Your task to perform on an android device: turn on improve location accuracy Image 0: 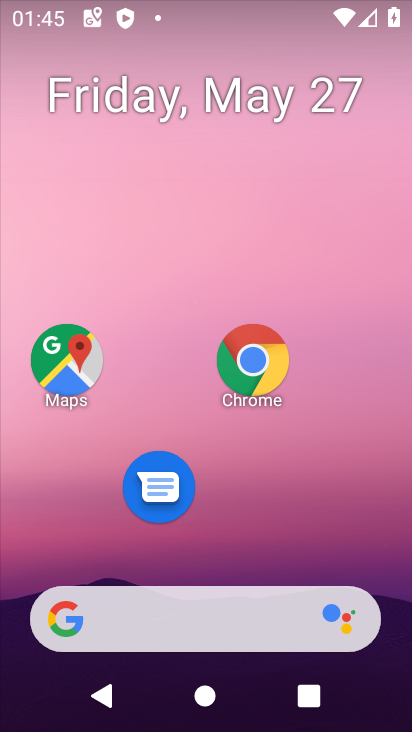
Step 0: drag from (251, 492) to (254, 50)
Your task to perform on an android device: turn on improve location accuracy Image 1: 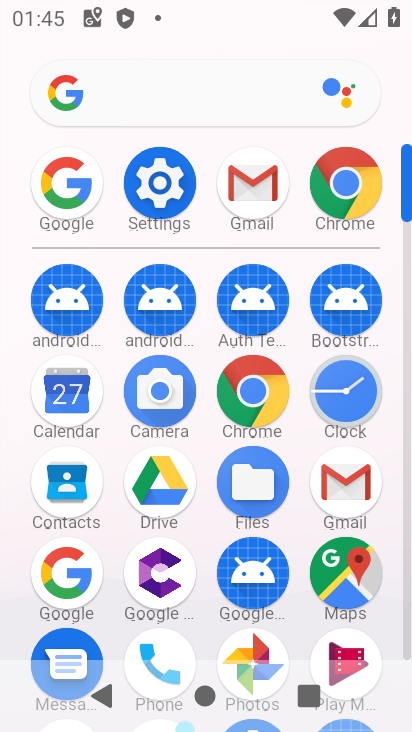
Step 1: click (159, 184)
Your task to perform on an android device: turn on improve location accuracy Image 2: 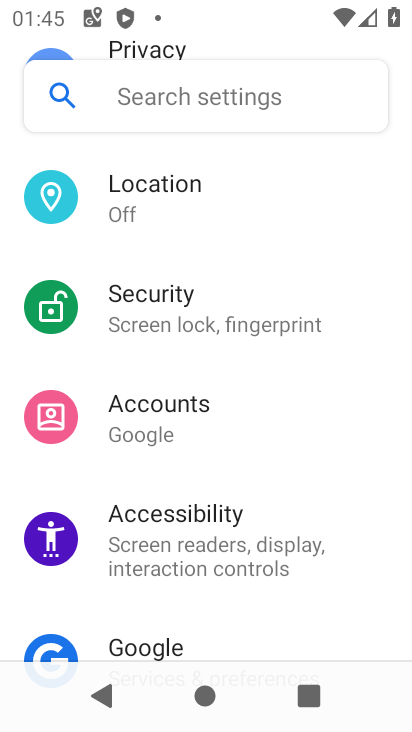
Step 2: click (164, 202)
Your task to perform on an android device: turn on improve location accuracy Image 3: 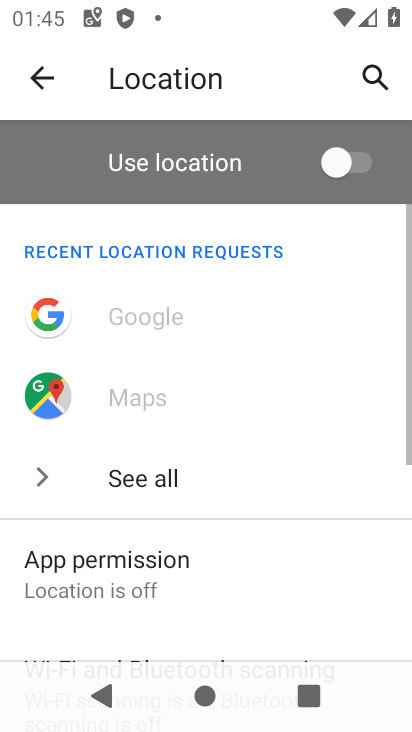
Step 3: drag from (210, 527) to (219, 76)
Your task to perform on an android device: turn on improve location accuracy Image 4: 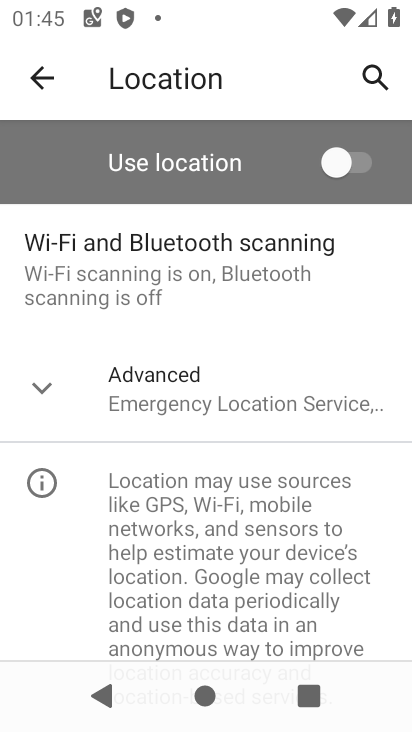
Step 4: click (142, 384)
Your task to perform on an android device: turn on improve location accuracy Image 5: 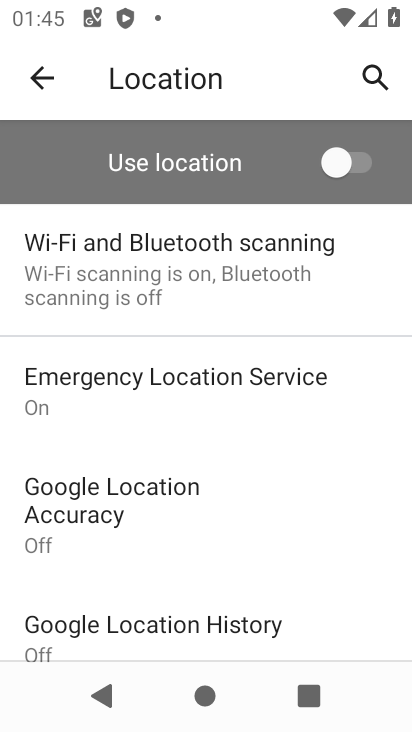
Step 5: click (85, 506)
Your task to perform on an android device: turn on improve location accuracy Image 6: 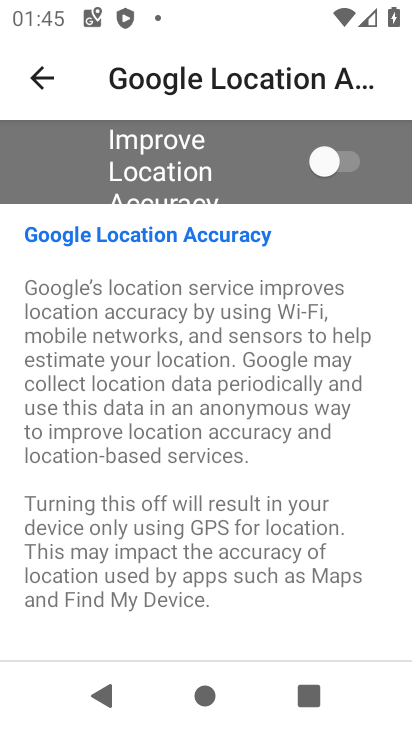
Step 6: click (339, 165)
Your task to perform on an android device: turn on improve location accuracy Image 7: 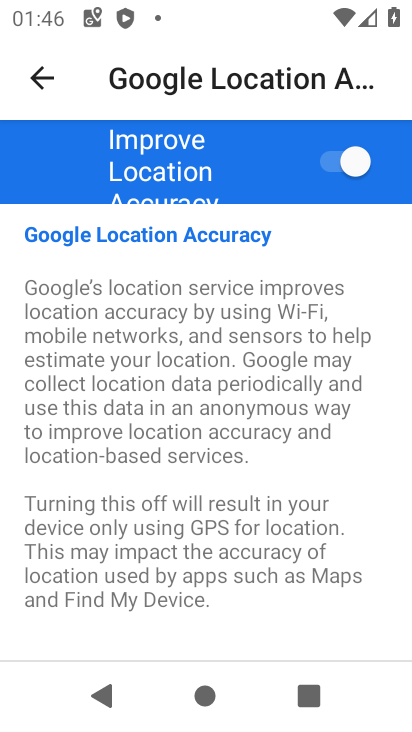
Step 7: task complete